Your task to perform on an android device: What's on my calendar tomorrow? Image 0: 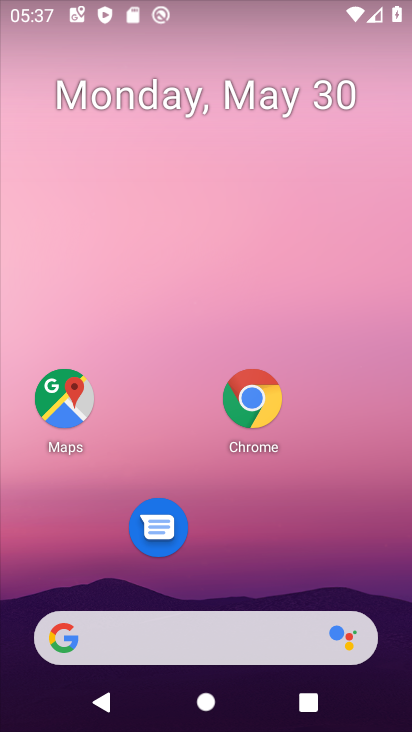
Step 0: drag from (247, 667) to (205, 16)
Your task to perform on an android device: What's on my calendar tomorrow? Image 1: 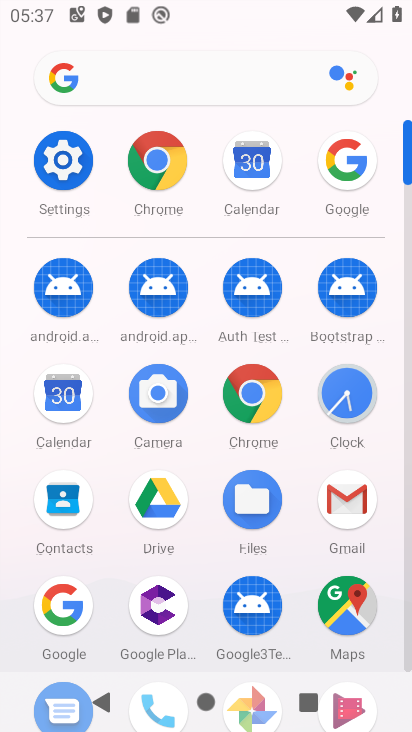
Step 1: click (56, 394)
Your task to perform on an android device: What's on my calendar tomorrow? Image 2: 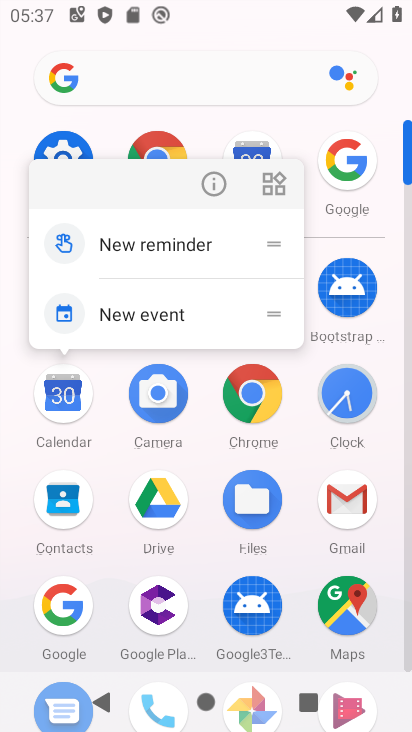
Step 2: click (42, 392)
Your task to perform on an android device: What's on my calendar tomorrow? Image 3: 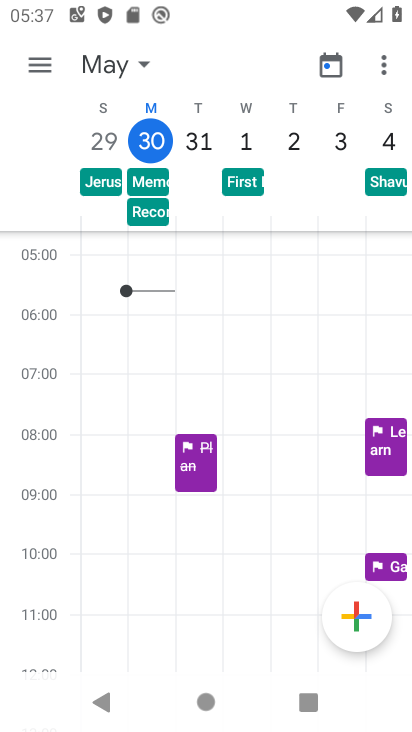
Step 3: click (194, 133)
Your task to perform on an android device: What's on my calendar tomorrow? Image 4: 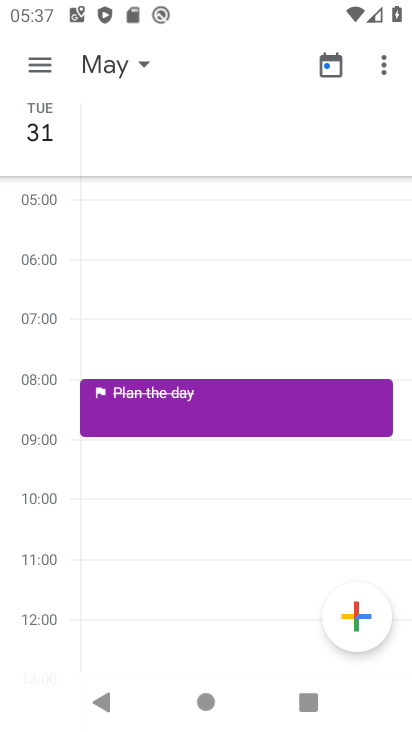
Step 4: task complete